Your task to perform on an android device: turn off translation in the chrome app Image 0: 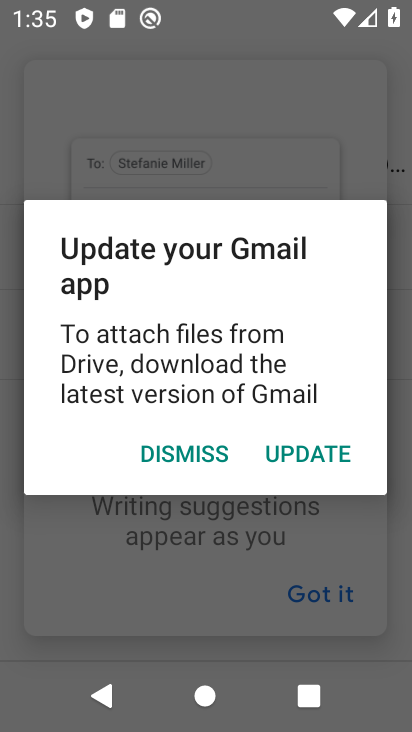
Step 0: press home button
Your task to perform on an android device: turn off translation in the chrome app Image 1: 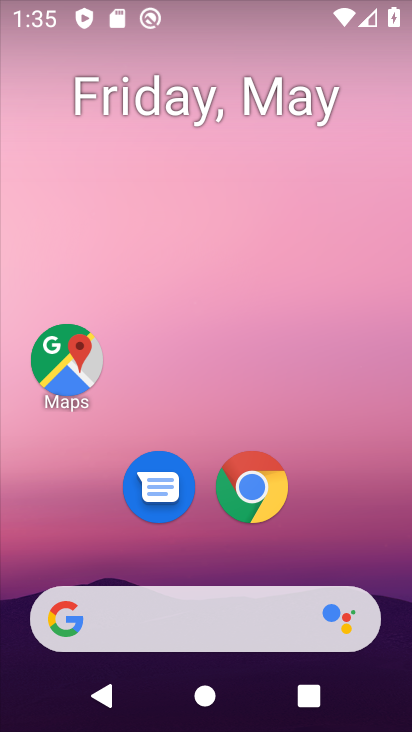
Step 1: click (258, 488)
Your task to perform on an android device: turn off translation in the chrome app Image 2: 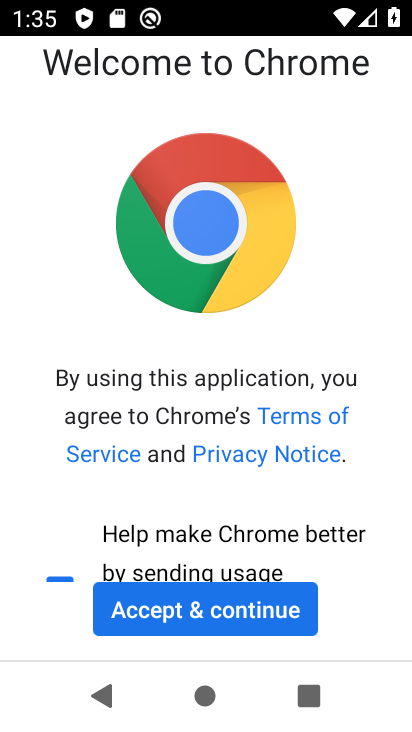
Step 2: click (201, 609)
Your task to perform on an android device: turn off translation in the chrome app Image 3: 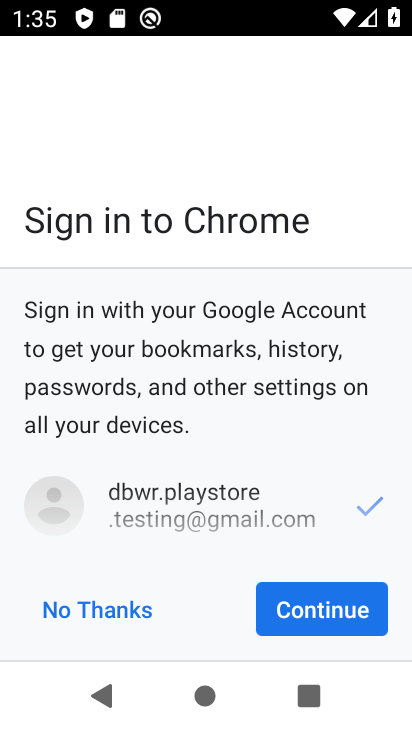
Step 3: click (130, 611)
Your task to perform on an android device: turn off translation in the chrome app Image 4: 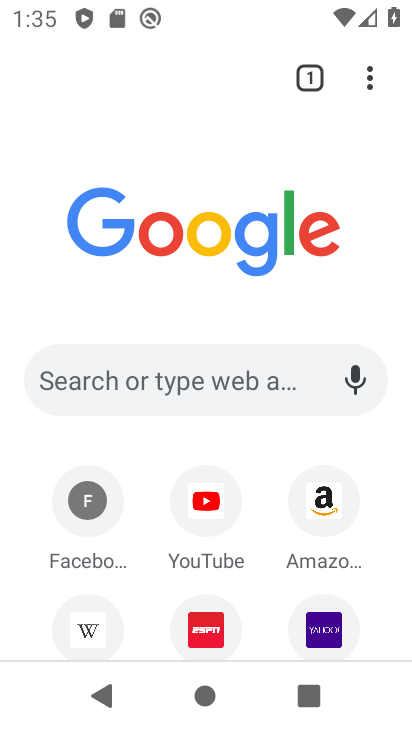
Step 4: click (372, 76)
Your task to perform on an android device: turn off translation in the chrome app Image 5: 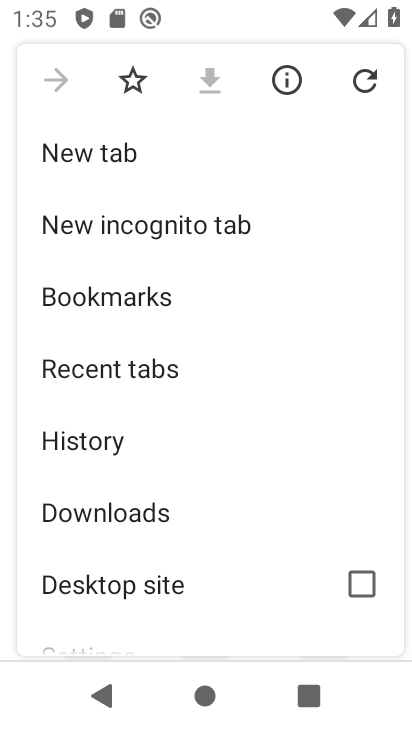
Step 5: drag from (218, 564) to (220, 234)
Your task to perform on an android device: turn off translation in the chrome app Image 6: 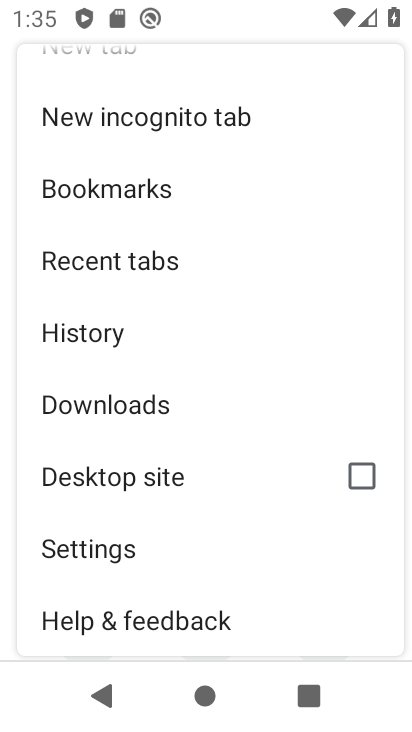
Step 6: click (118, 548)
Your task to perform on an android device: turn off translation in the chrome app Image 7: 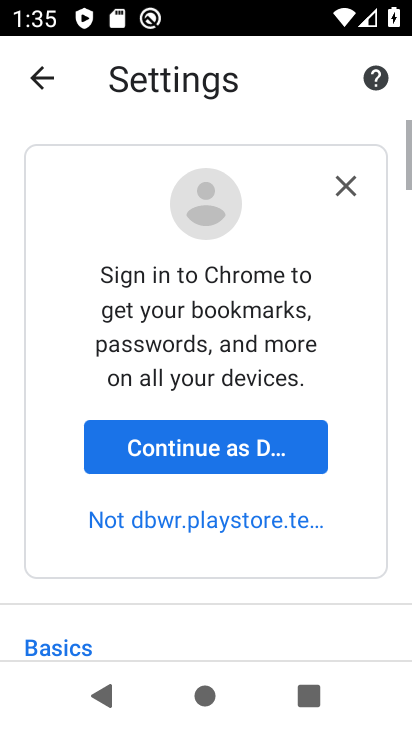
Step 7: drag from (189, 581) to (164, 166)
Your task to perform on an android device: turn off translation in the chrome app Image 8: 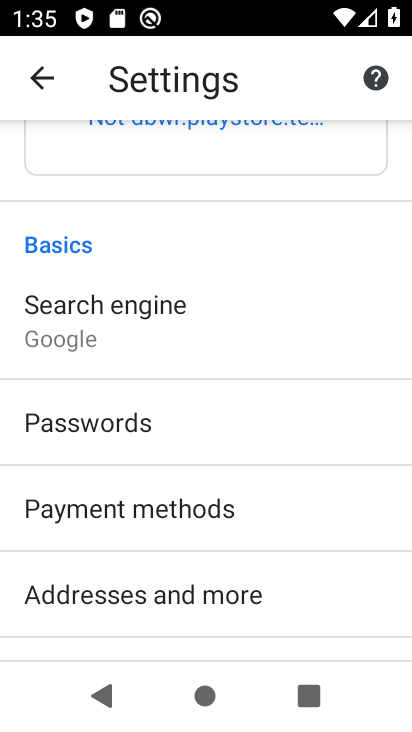
Step 8: drag from (165, 539) to (136, 148)
Your task to perform on an android device: turn off translation in the chrome app Image 9: 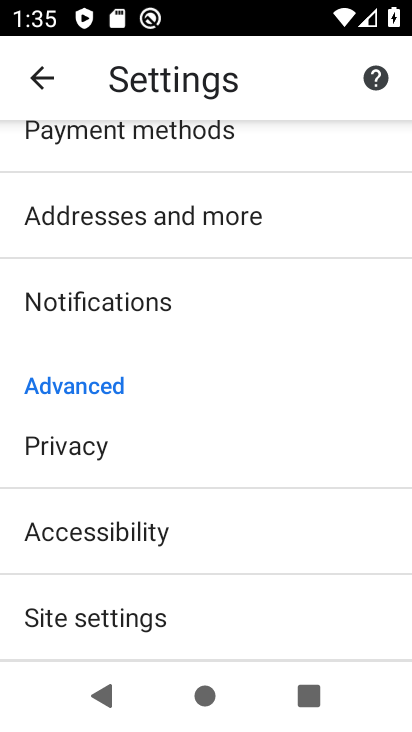
Step 9: drag from (155, 597) to (134, 252)
Your task to perform on an android device: turn off translation in the chrome app Image 10: 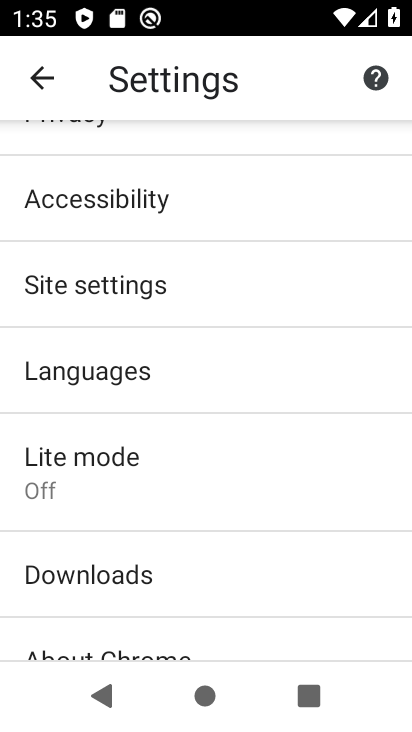
Step 10: click (89, 373)
Your task to perform on an android device: turn off translation in the chrome app Image 11: 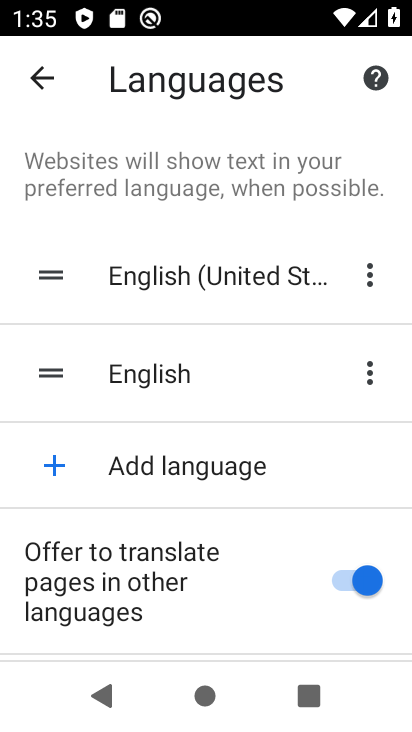
Step 11: click (367, 585)
Your task to perform on an android device: turn off translation in the chrome app Image 12: 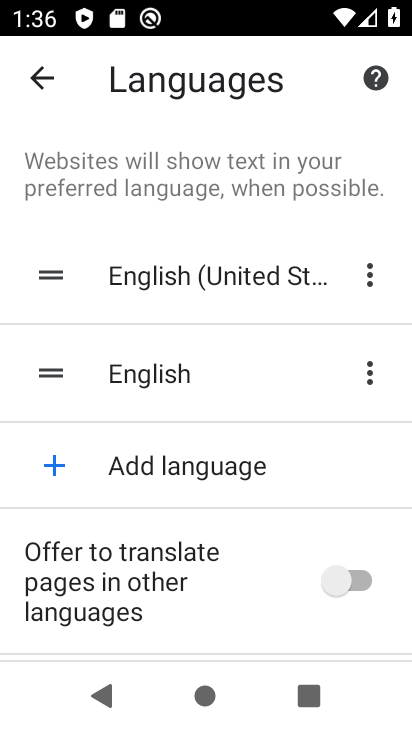
Step 12: task complete